Your task to perform on an android device: Open network settings Image 0: 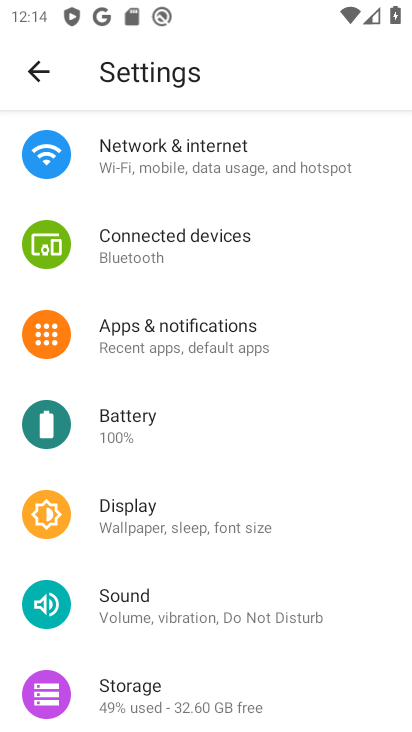
Step 0: click (288, 192)
Your task to perform on an android device: Open network settings Image 1: 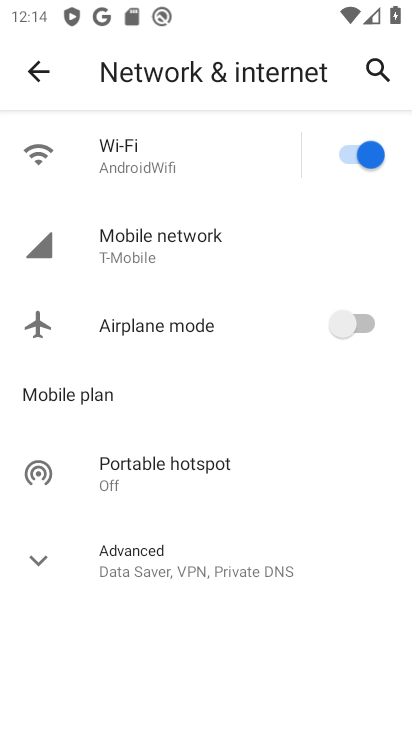
Step 1: click (158, 250)
Your task to perform on an android device: Open network settings Image 2: 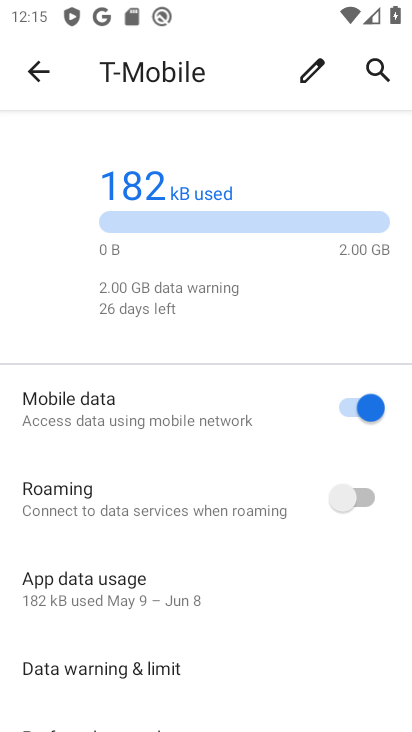
Step 2: task complete